Your task to perform on an android device: delete a single message in the gmail app Image 0: 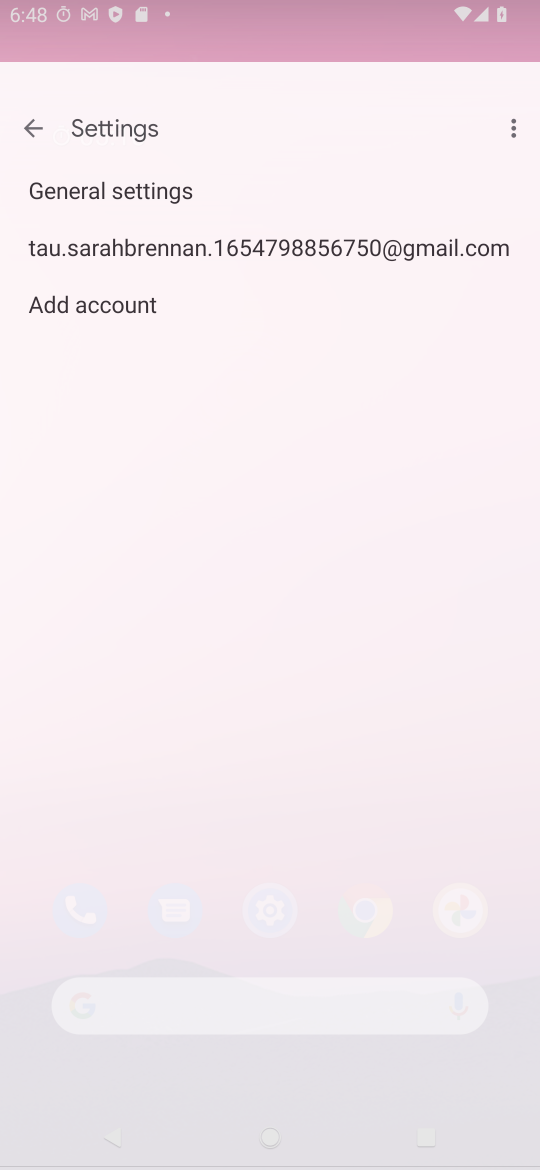
Step 0: press home button
Your task to perform on an android device: delete a single message in the gmail app Image 1: 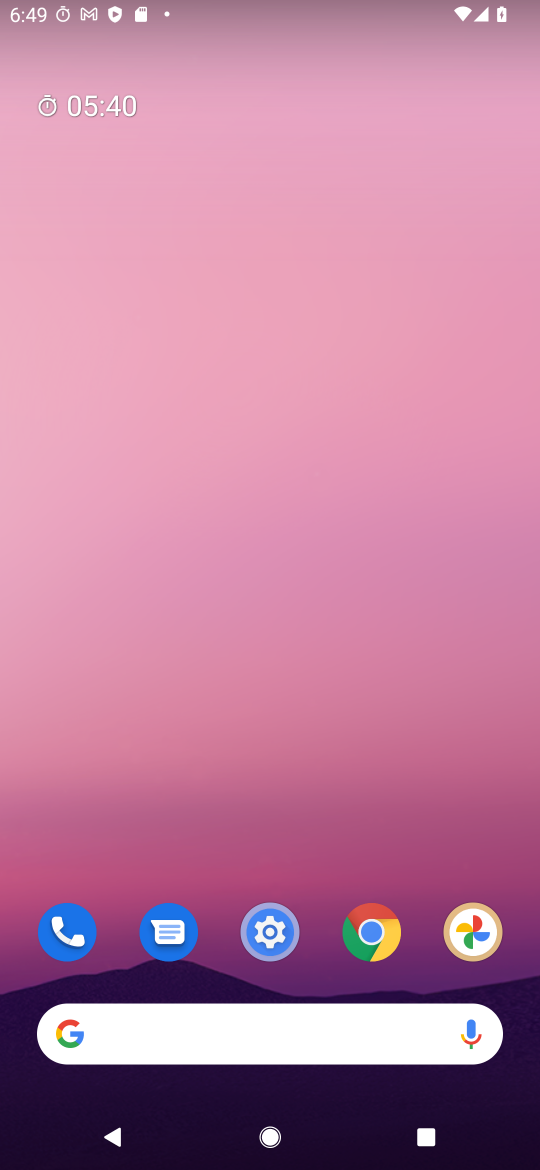
Step 1: drag from (347, 859) to (434, 160)
Your task to perform on an android device: delete a single message in the gmail app Image 2: 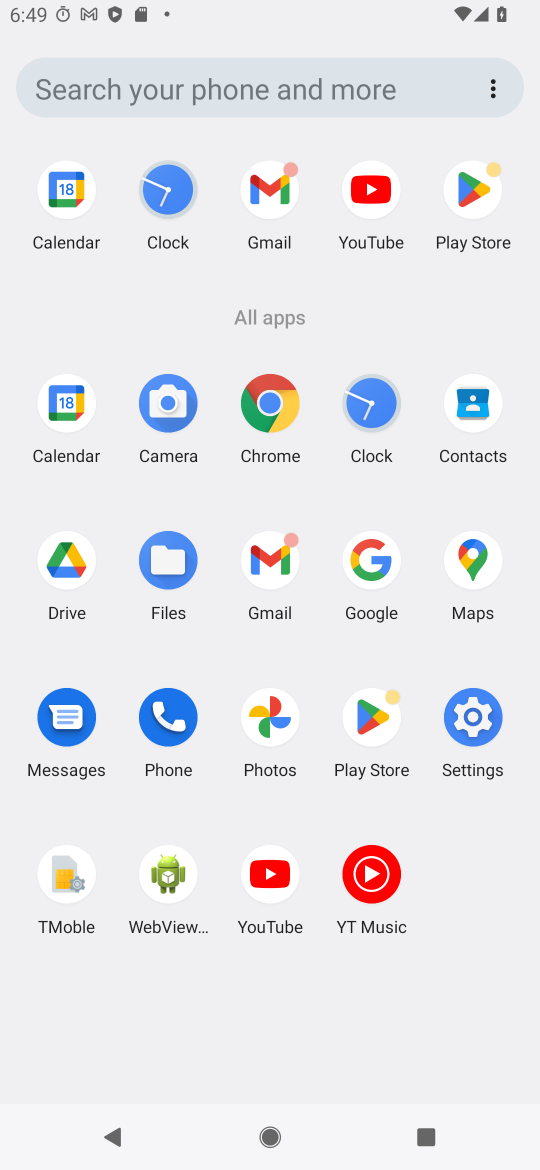
Step 2: click (266, 549)
Your task to perform on an android device: delete a single message in the gmail app Image 3: 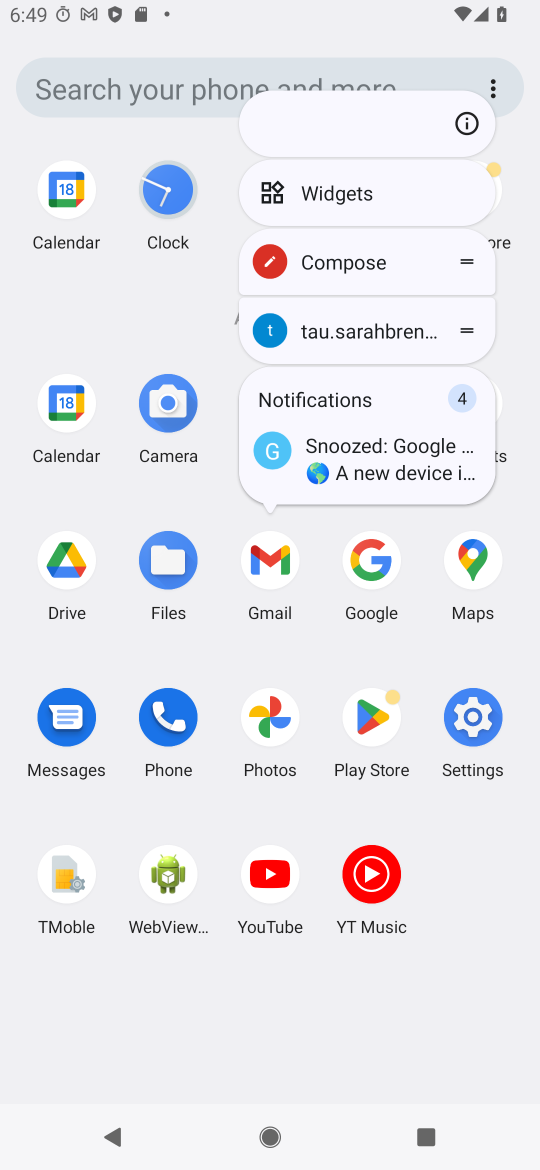
Step 3: click (275, 550)
Your task to perform on an android device: delete a single message in the gmail app Image 4: 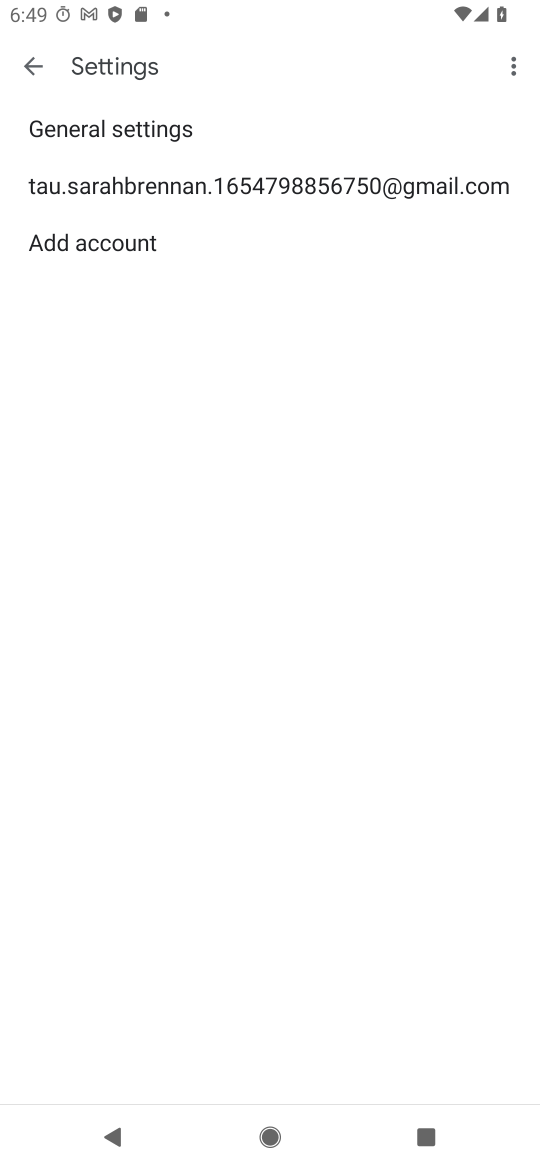
Step 4: click (257, 190)
Your task to perform on an android device: delete a single message in the gmail app Image 5: 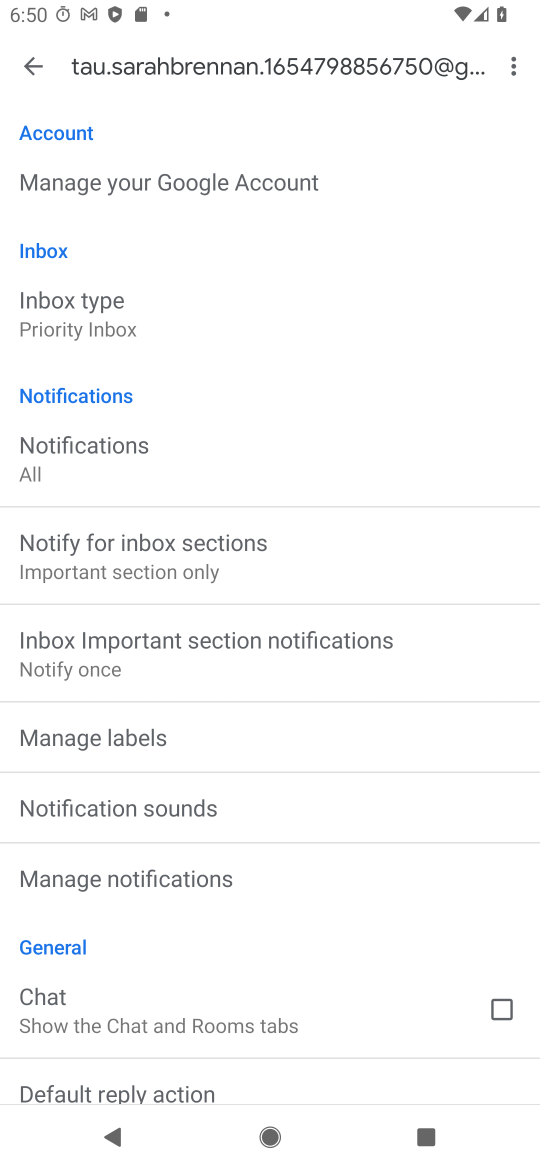
Step 5: click (27, 64)
Your task to perform on an android device: delete a single message in the gmail app Image 6: 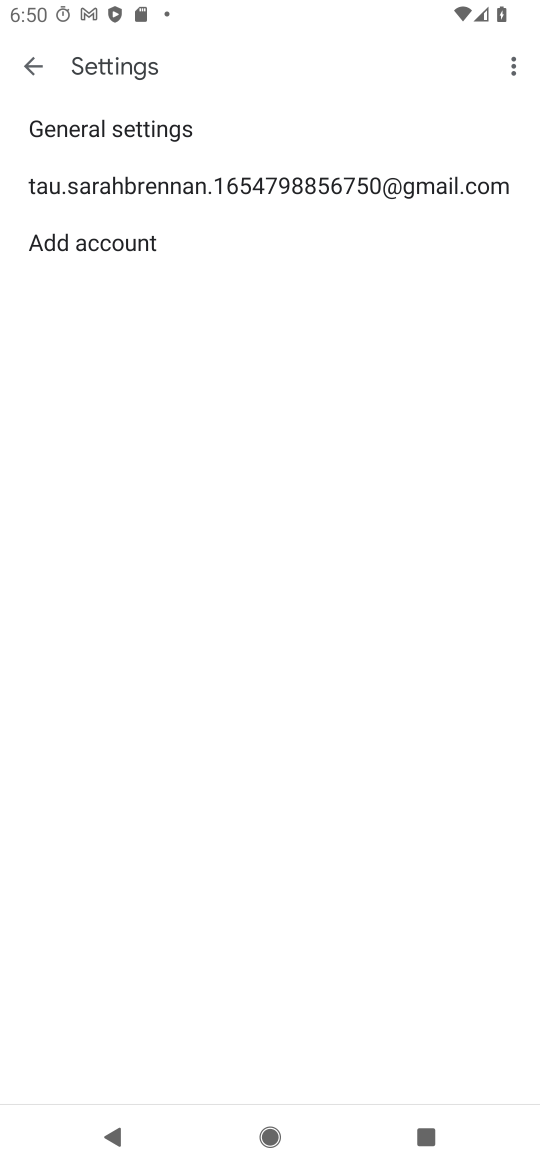
Step 6: click (27, 64)
Your task to perform on an android device: delete a single message in the gmail app Image 7: 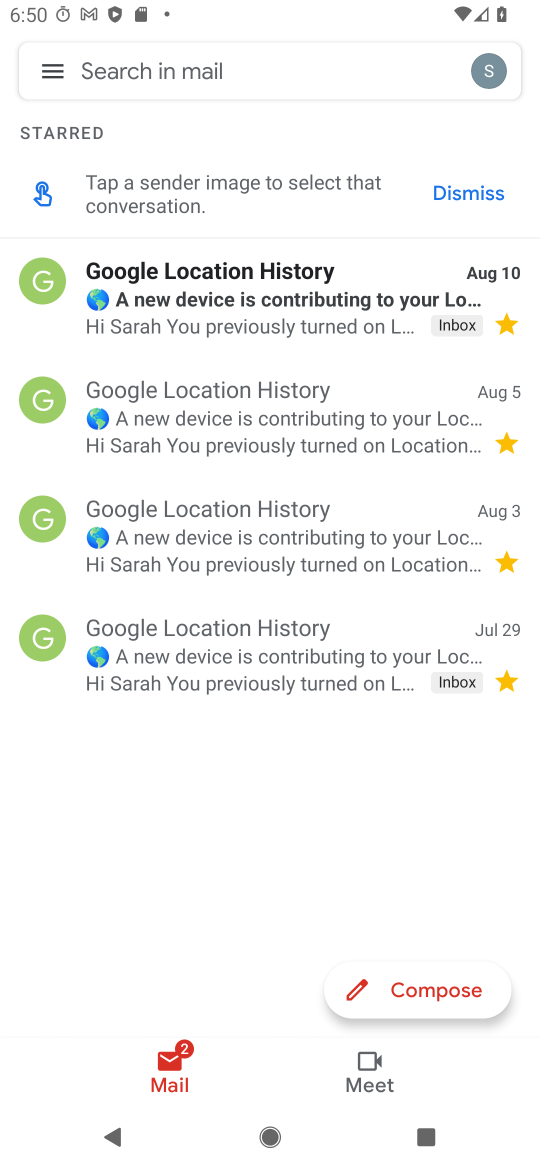
Step 7: click (42, 265)
Your task to perform on an android device: delete a single message in the gmail app Image 8: 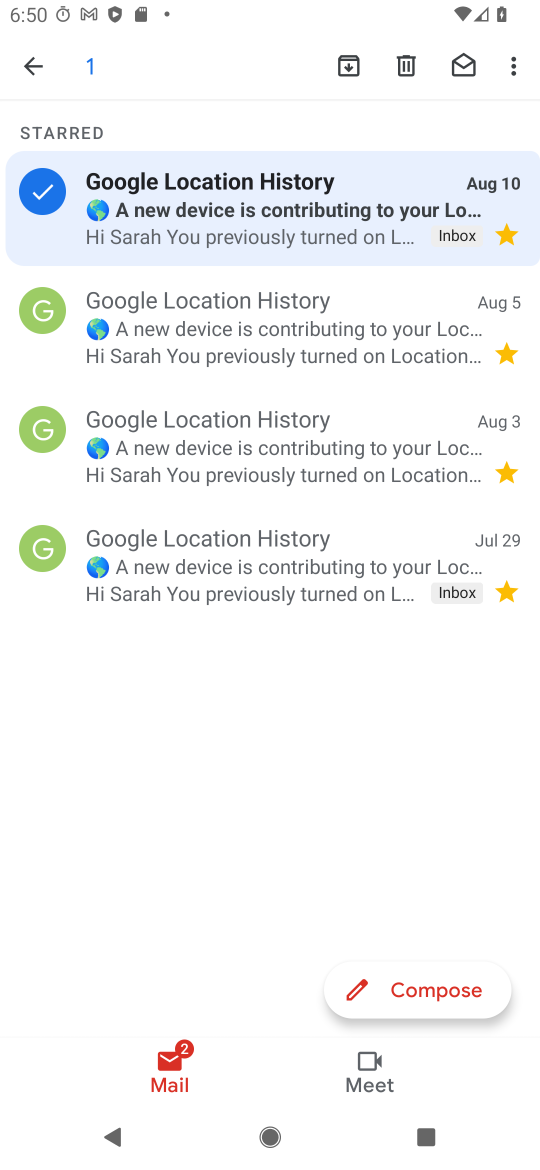
Step 8: task complete